Your task to perform on an android device: Search for pizza restaurants on Maps Image 0: 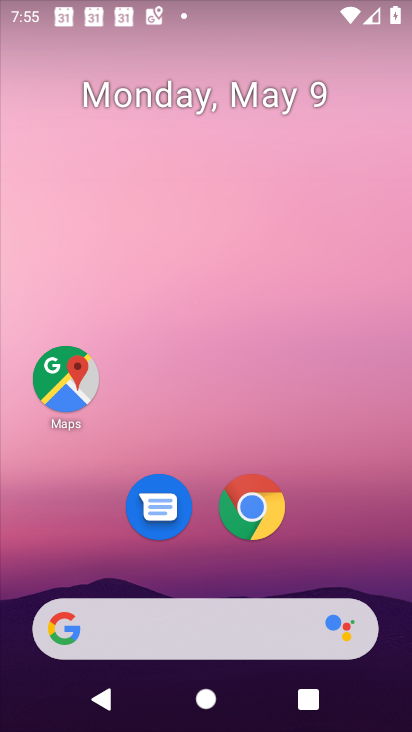
Step 0: drag from (276, 667) to (355, 78)
Your task to perform on an android device: Search for pizza restaurants on Maps Image 1: 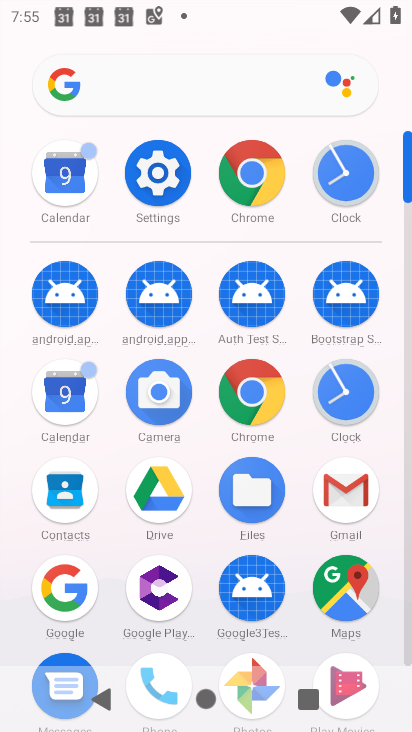
Step 1: click (366, 593)
Your task to perform on an android device: Search for pizza restaurants on Maps Image 2: 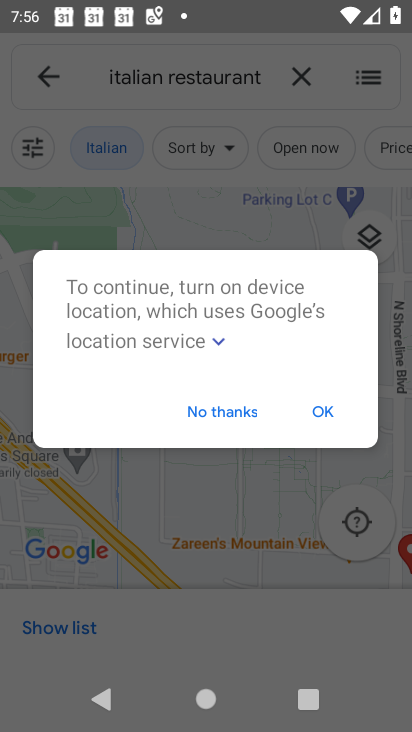
Step 2: click (220, 418)
Your task to perform on an android device: Search for pizza restaurants on Maps Image 3: 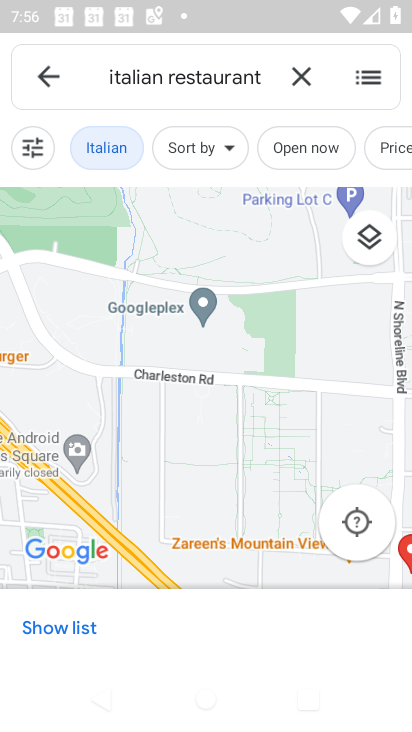
Step 3: click (298, 86)
Your task to perform on an android device: Search for pizza restaurants on Maps Image 4: 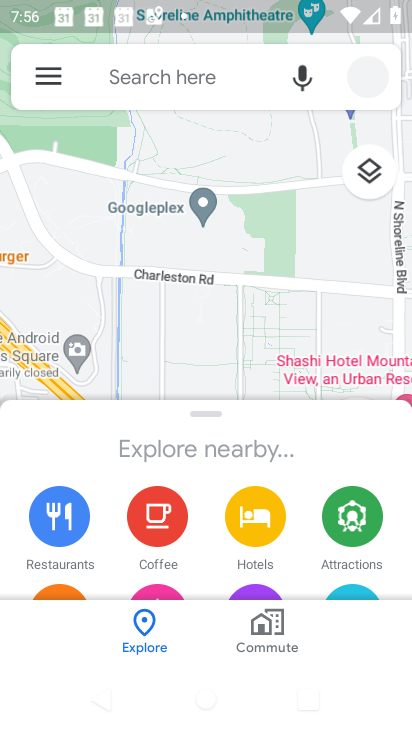
Step 4: click (209, 77)
Your task to perform on an android device: Search for pizza restaurants on Maps Image 5: 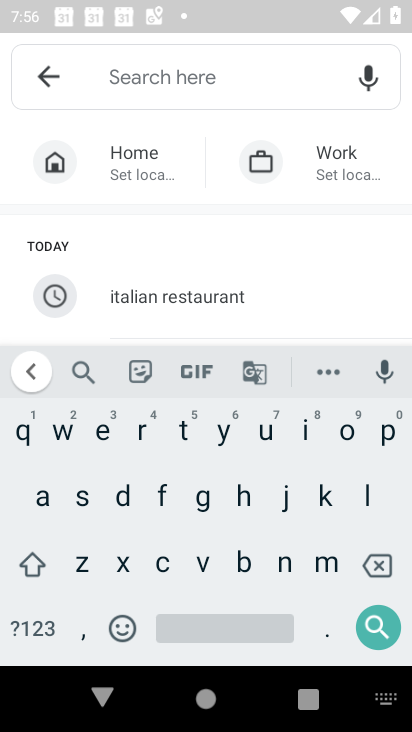
Step 5: click (383, 435)
Your task to perform on an android device: Search for pizza restaurants on Maps Image 6: 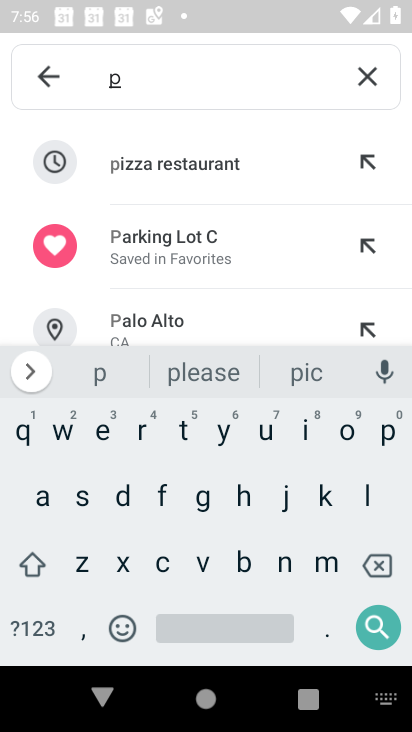
Step 6: click (144, 178)
Your task to perform on an android device: Search for pizza restaurants on Maps Image 7: 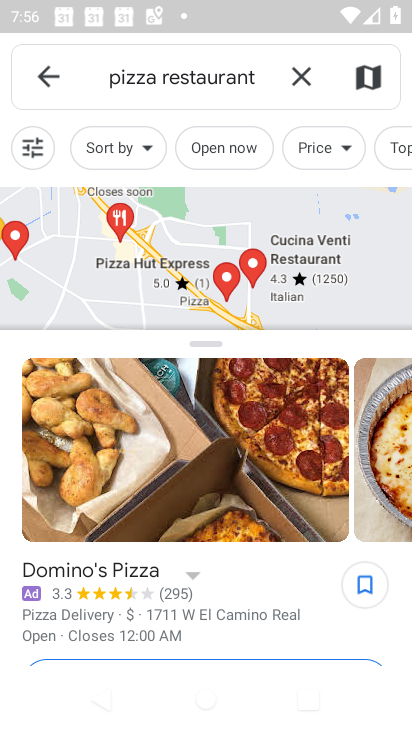
Step 7: click (124, 264)
Your task to perform on an android device: Search for pizza restaurants on Maps Image 8: 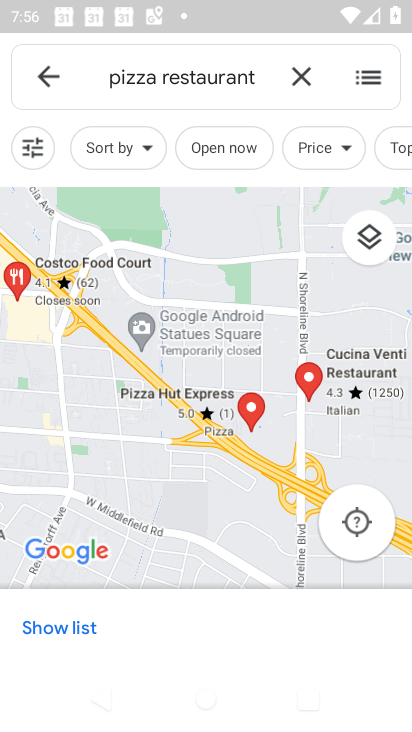
Step 8: task complete